Your task to perform on an android device: make emails show in primary in the gmail app Image 0: 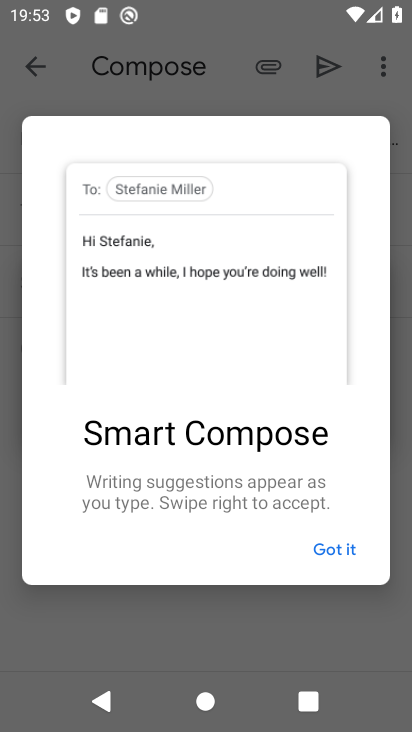
Step 0: press home button
Your task to perform on an android device: make emails show in primary in the gmail app Image 1: 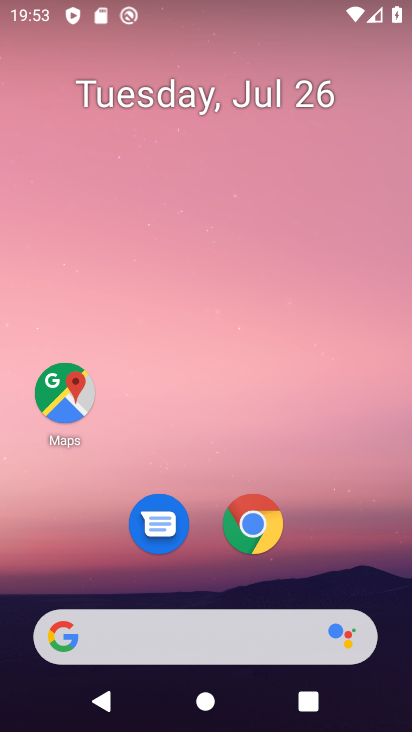
Step 1: drag from (149, 650) to (283, 50)
Your task to perform on an android device: make emails show in primary in the gmail app Image 2: 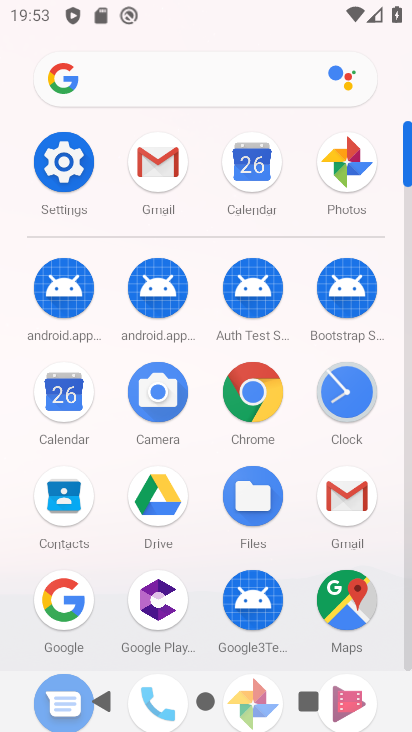
Step 2: click (152, 160)
Your task to perform on an android device: make emails show in primary in the gmail app Image 3: 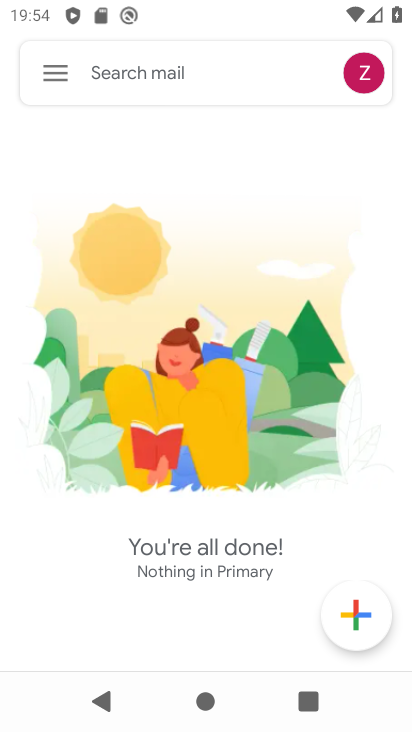
Step 3: click (49, 64)
Your task to perform on an android device: make emails show in primary in the gmail app Image 4: 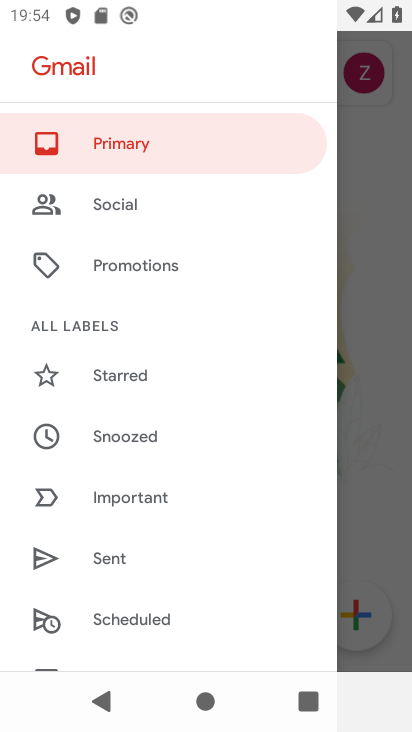
Step 4: drag from (182, 625) to (226, 127)
Your task to perform on an android device: make emails show in primary in the gmail app Image 5: 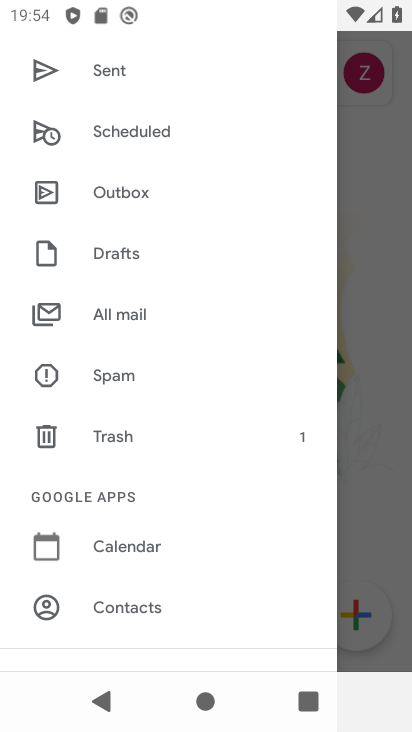
Step 5: drag from (196, 570) to (310, 192)
Your task to perform on an android device: make emails show in primary in the gmail app Image 6: 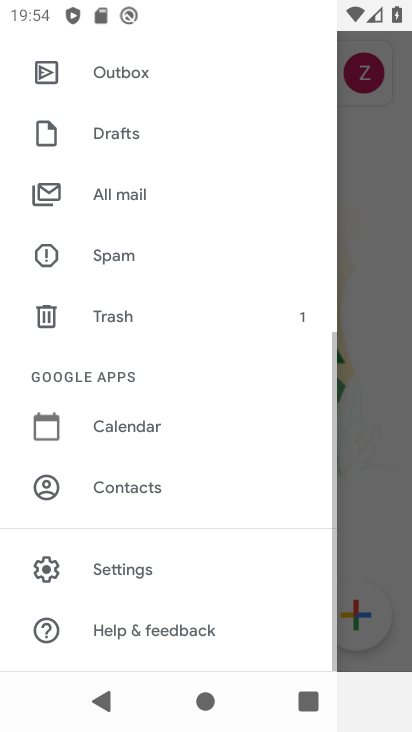
Step 6: click (125, 555)
Your task to perform on an android device: make emails show in primary in the gmail app Image 7: 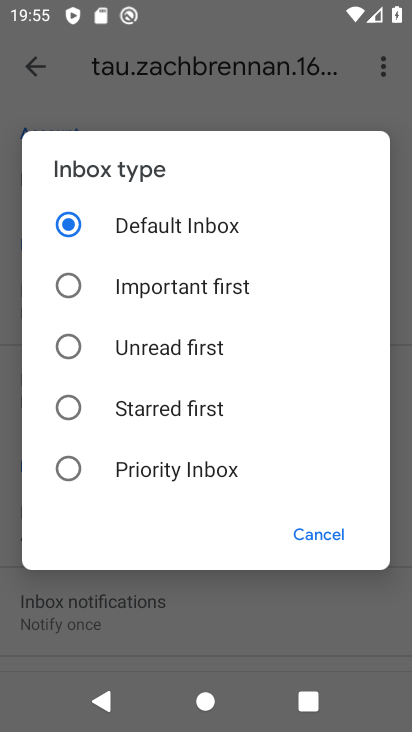
Step 7: click (305, 544)
Your task to perform on an android device: make emails show in primary in the gmail app Image 8: 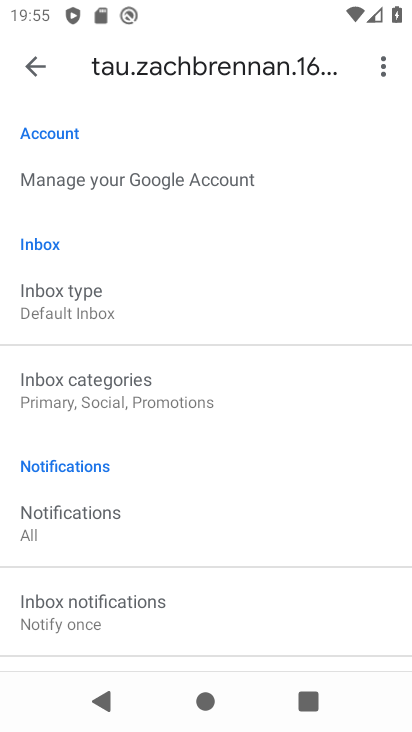
Step 8: drag from (176, 484) to (309, 146)
Your task to perform on an android device: make emails show in primary in the gmail app Image 9: 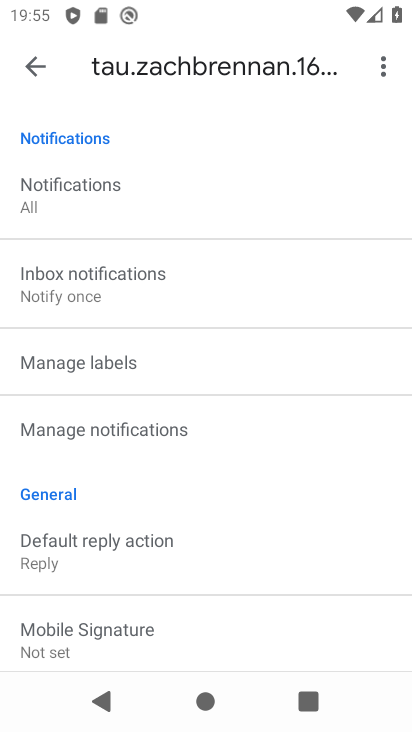
Step 9: drag from (242, 216) to (272, 596)
Your task to perform on an android device: make emails show in primary in the gmail app Image 10: 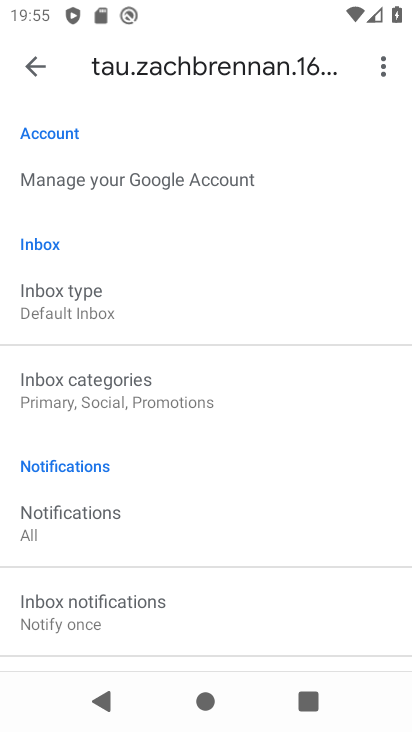
Step 10: click (116, 387)
Your task to perform on an android device: make emails show in primary in the gmail app Image 11: 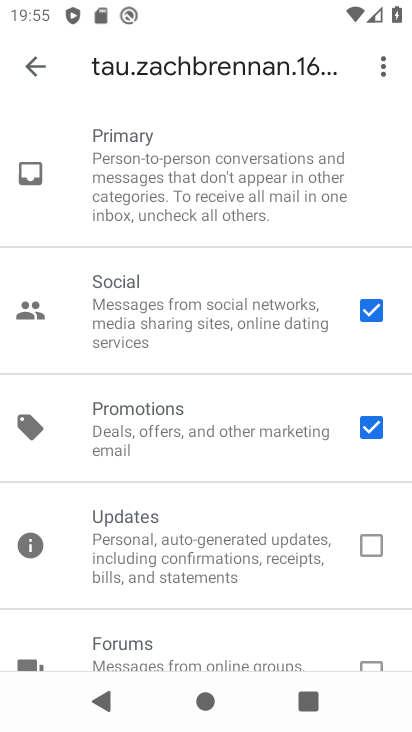
Step 11: click (373, 304)
Your task to perform on an android device: make emails show in primary in the gmail app Image 12: 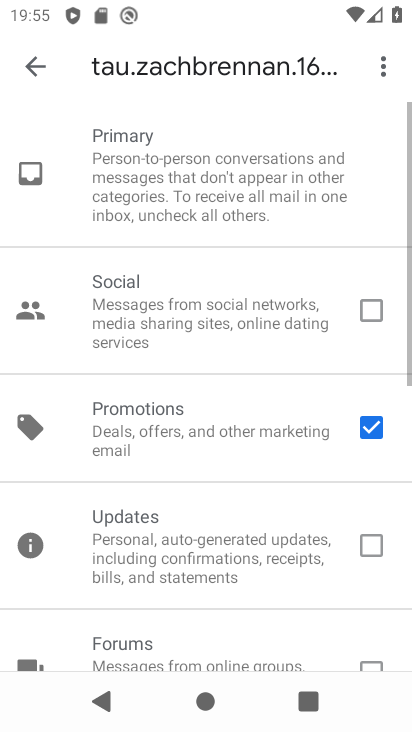
Step 12: click (372, 427)
Your task to perform on an android device: make emails show in primary in the gmail app Image 13: 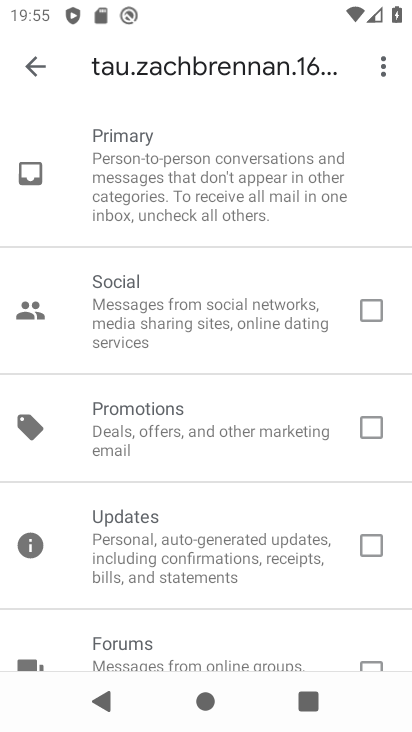
Step 13: click (30, 67)
Your task to perform on an android device: make emails show in primary in the gmail app Image 14: 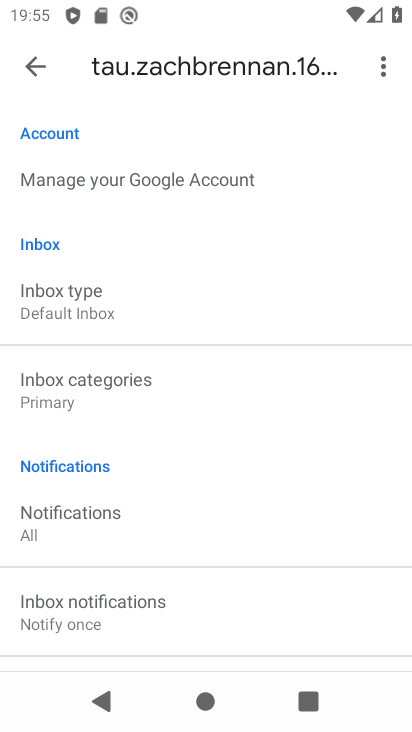
Step 14: task complete